Your task to perform on an android device: Open battery settings Image 0: 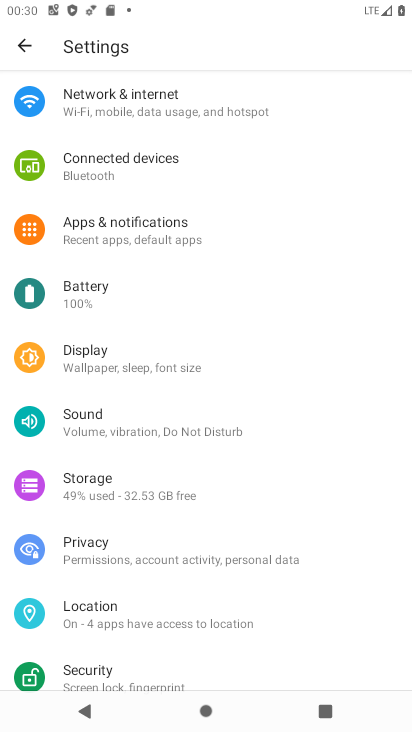
Step 0: press home button
Your task to perform on an android device: Open battery settings Image 1: 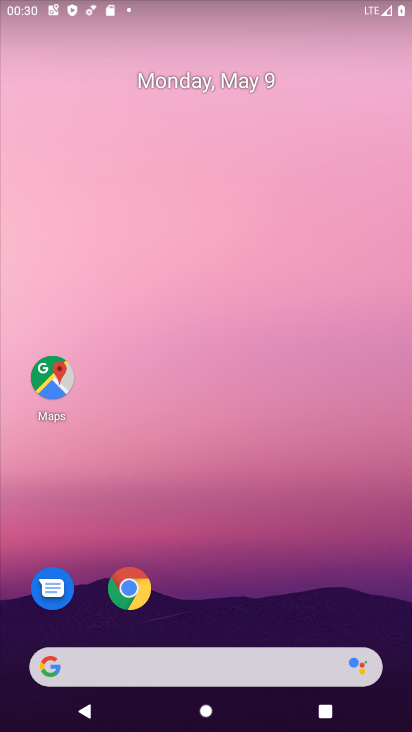
Step 1: drag from (278, 528) to (166, 56)
Your task to perform on an android device: Open battery settings Image 2: 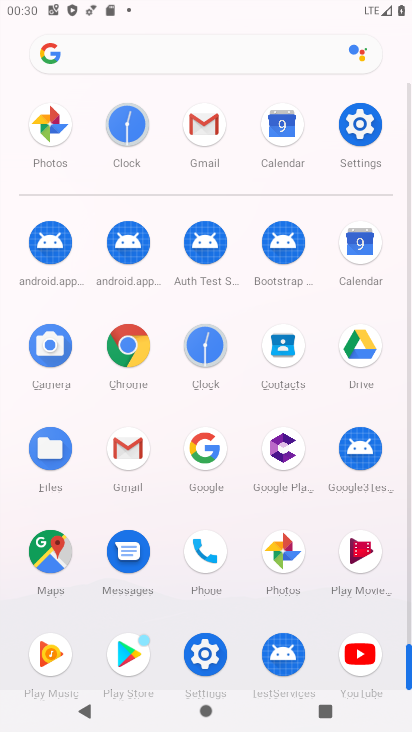
Step 2: click (357, 120)
Your task to perform on an android device: Open battery settings Image 3: 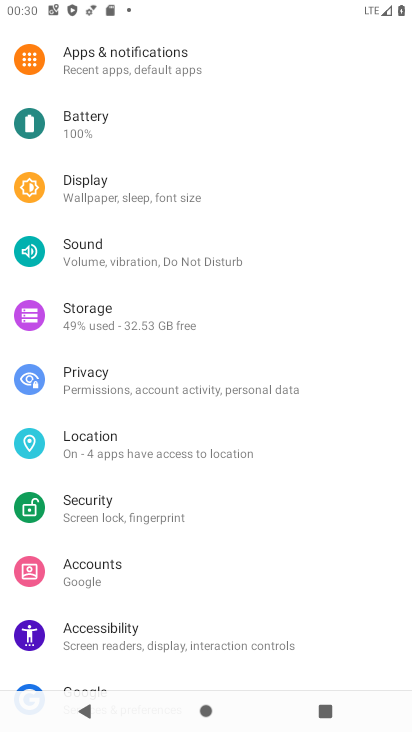
Step 3: click (71, 123)
Your task to perform on an android device: Open battery settings Image 4: 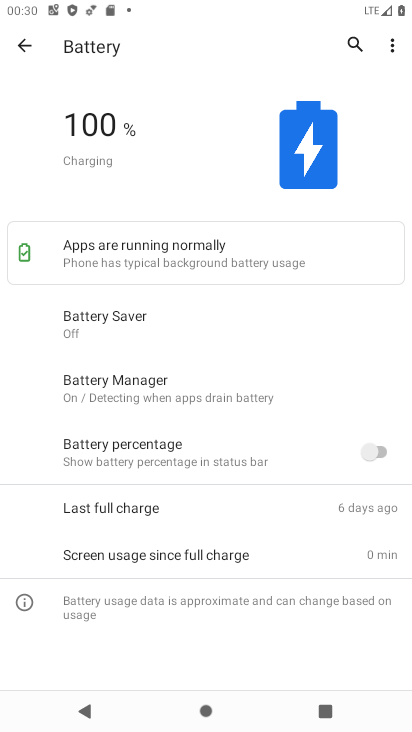
Step 4: task complete